Your task to perform on an android device: When is my next meeting? Image 0: 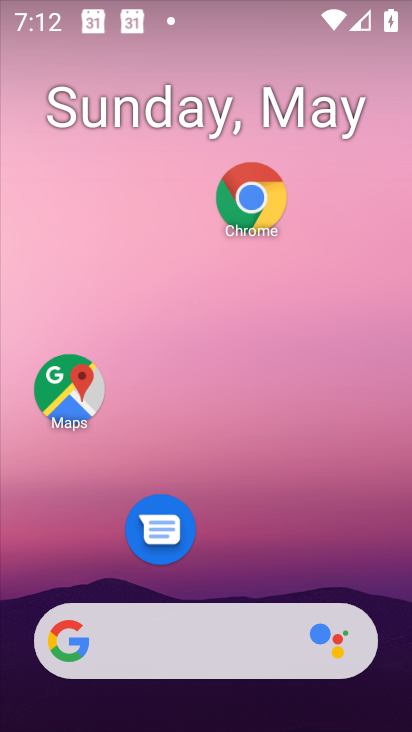
Step 0: drag from (225, 532) to (278, 193)
Your task to perform on an android device: When is my next meeting? Image 1: 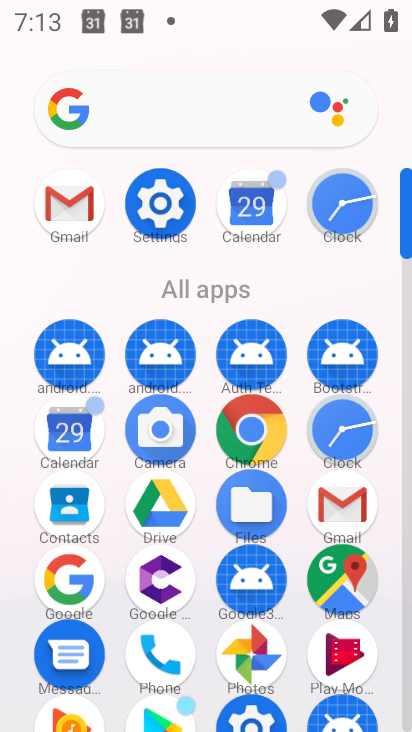
Step 1: click (73, 432)
Your task to perform on an android device: When is my next meeting? Image 2: 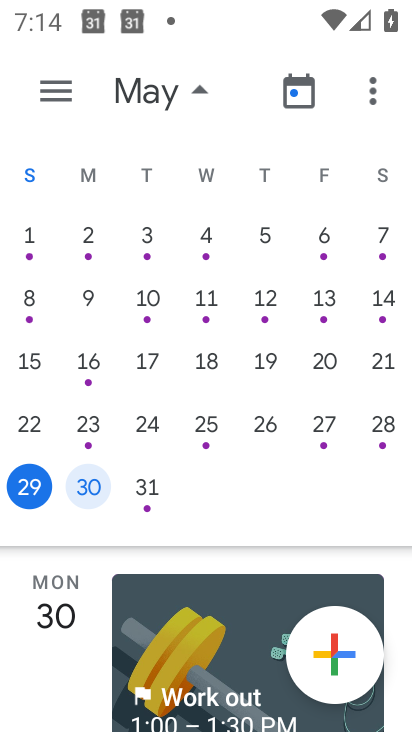
Step 2: task complete